Your task to perform on an android device: install app "Google Photos" Image 0: 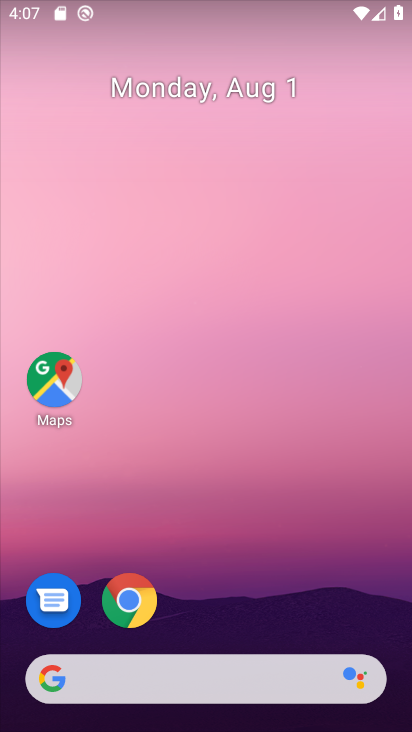
Step 0: drag from (242, 586) to (321, 109)
Your task to perform on an android device: install app "Google Photos" Image 1: 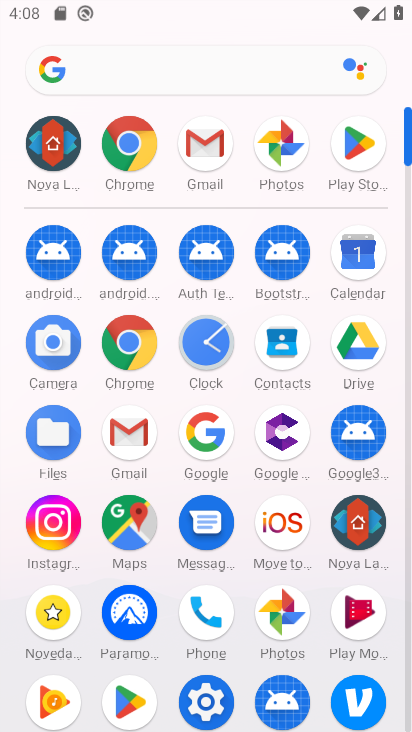
Step 1: click (361, 141)
Your task to perform on an android device: install app "Google Photos" Image 2: 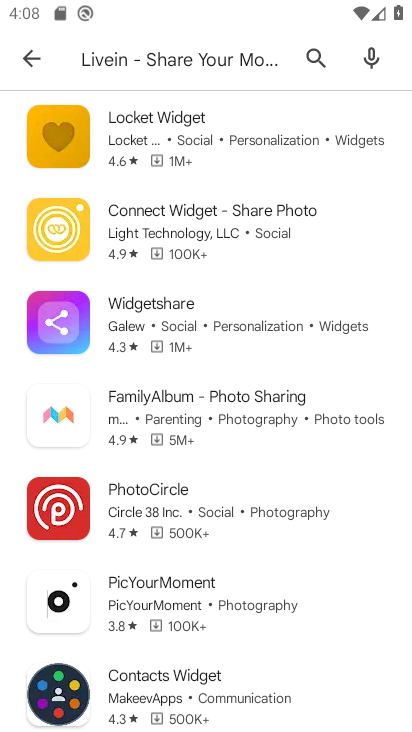
Step 2: click (253, 47)
Your task to perform on an android device: install app "Google Photos" Image 3: 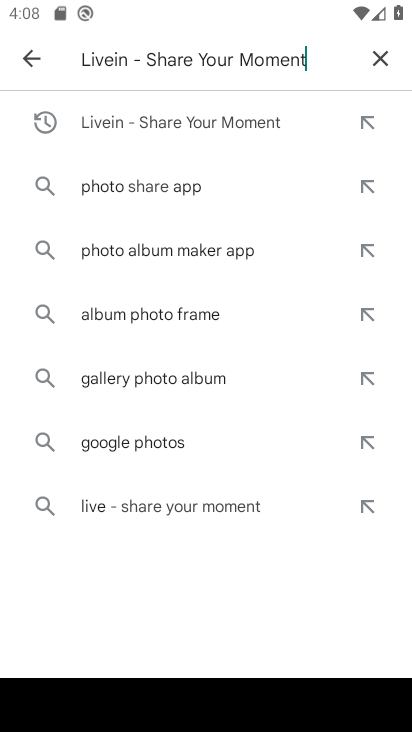
Step 3: click (368, 62)
Your task to perform on an android device: install app "Google Photos" Image 4: 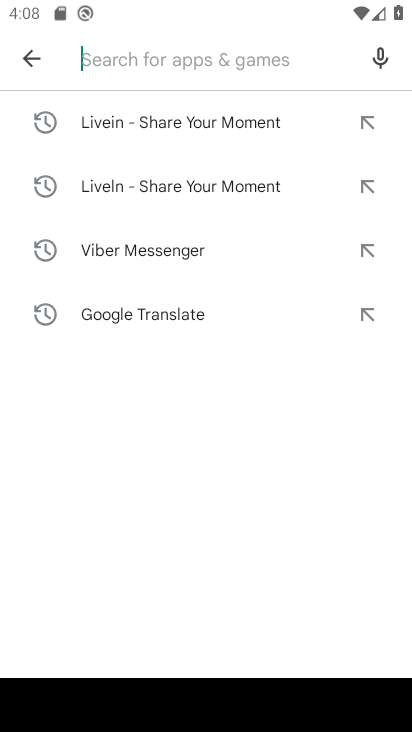
Step 4: type "Google Photos"
Your task to perform on an android device: install app "Google Photos" Image 5: 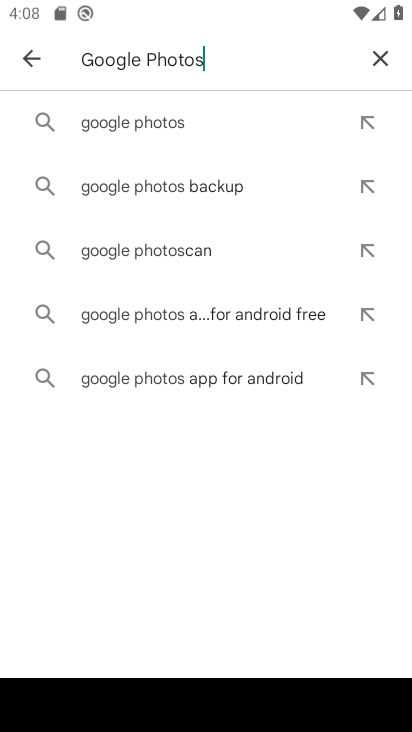
Step 5: press enter
Your task to perform on an android device: install app "Google Photos" Image 6: 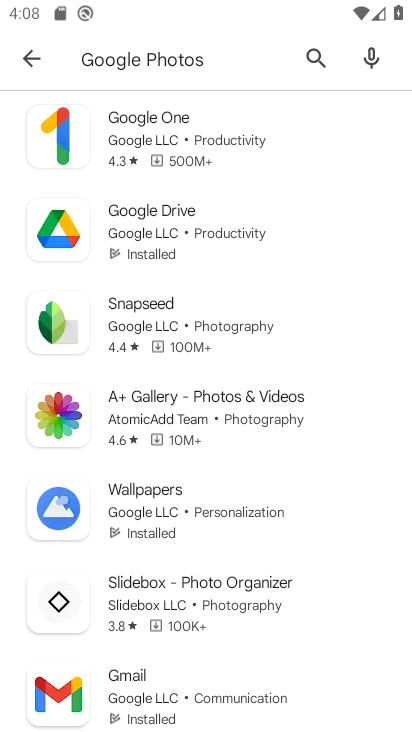
Step 6: task complete